Your task to perform on an android device: turn on data saver in the chrome app Image 0: 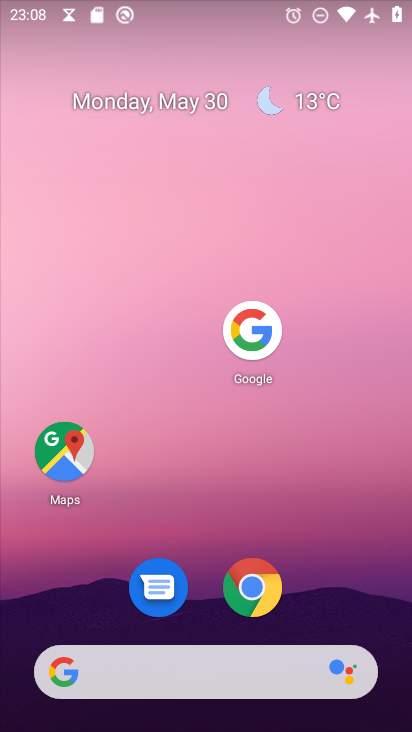
Step 0: press home button
Your task to perform on an android device: turn on data saver in the chrome app Image 1: 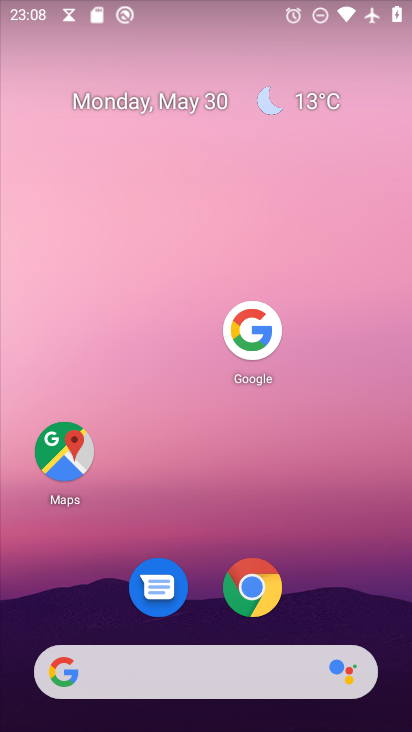
Step 1: click (240, 593)
Your task to perform on an android device: turn on data saver in the chrome app Image 2: 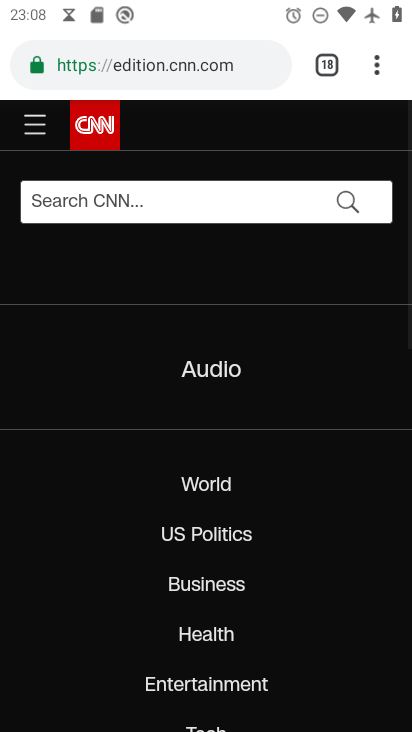
Step 2: drag from (373, 65) to (216, 642)
Your task to perform on an android device: turn on data saver in the chrome app Image 3: 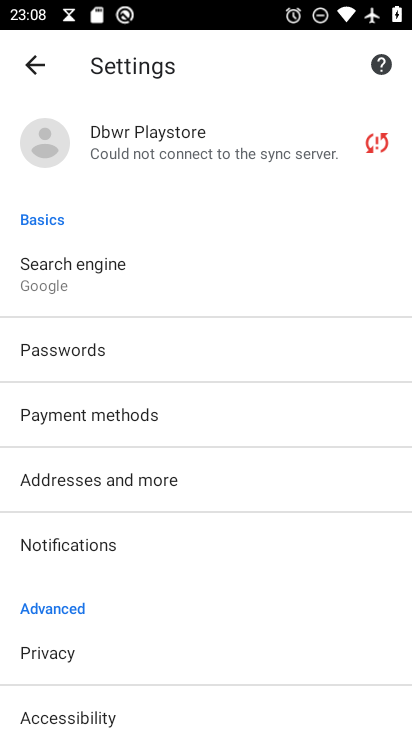
Step 3: drag from (174, 602) to (229, 245)
Your task to perform on an android device: turn on data saver in the chrome app Image 4: 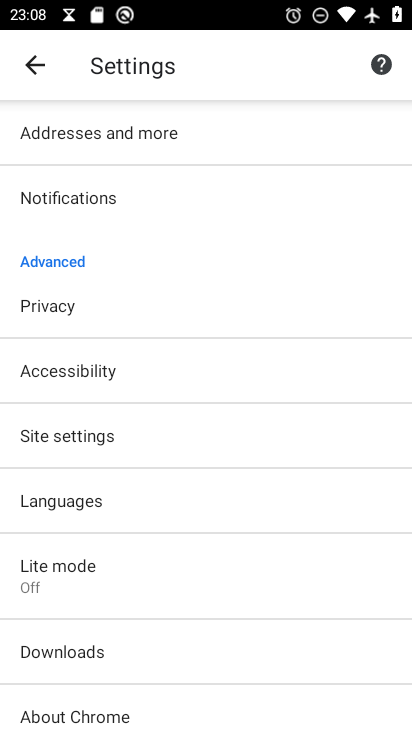
Step 4: click (82, 574)
Your task to perform on an android device: turn on data saver in the chrome app Image 5: 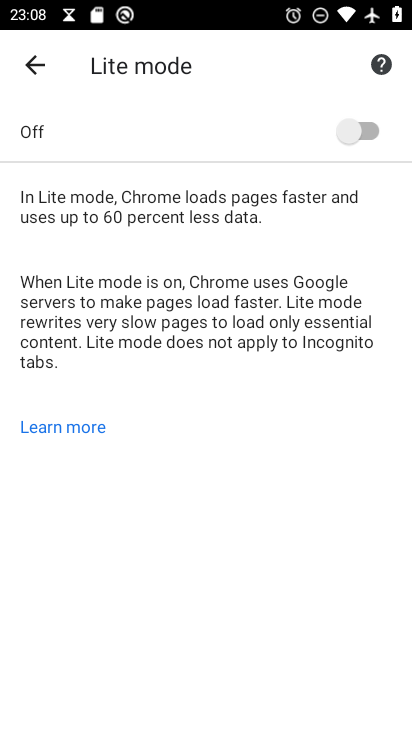
Step 5: click (361, 124)
Your task to perform on an android device: turn on data saver in the chrome app Image 6: 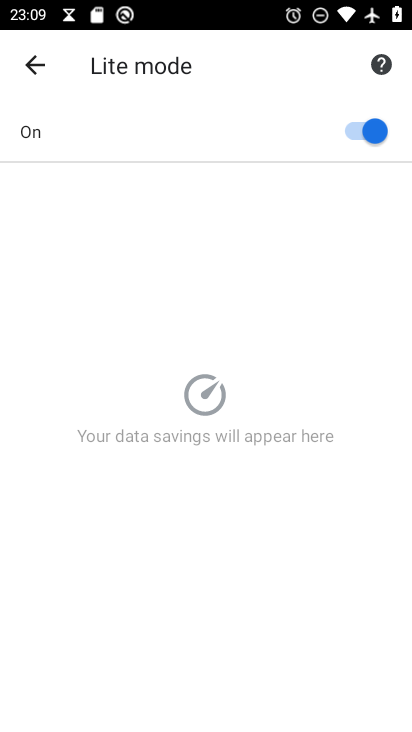
Step 6: task complete